Your task to perform on an android device: Go to notification settings Image 0: 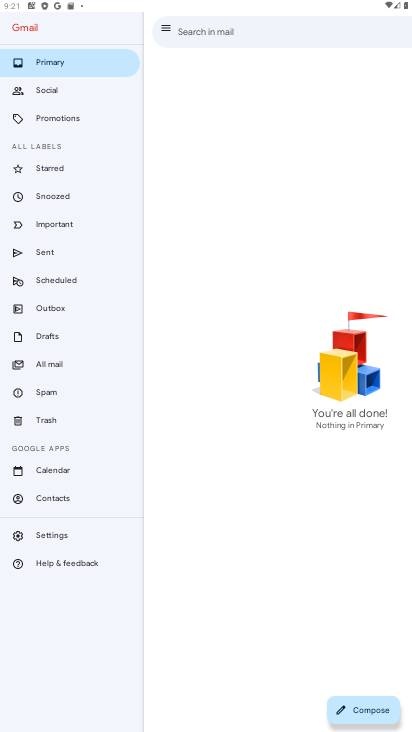
Step 0: click (22, 525)
Your task to perform on an android device: Go to notification settings Image 1: 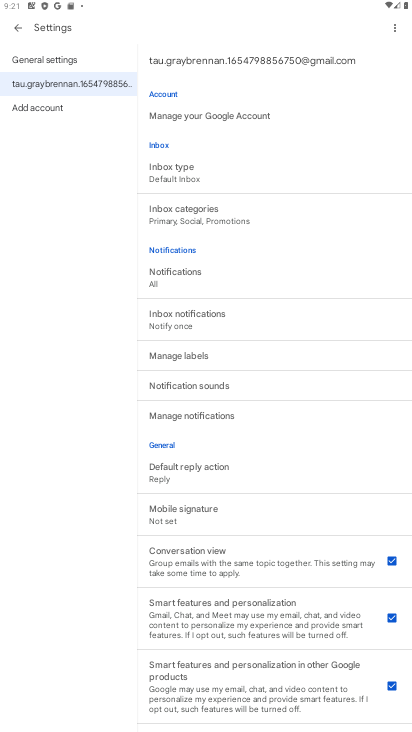
Step 1: task complete